Your task to perform on an android device: delete browsing data in the chrome app Image 0: 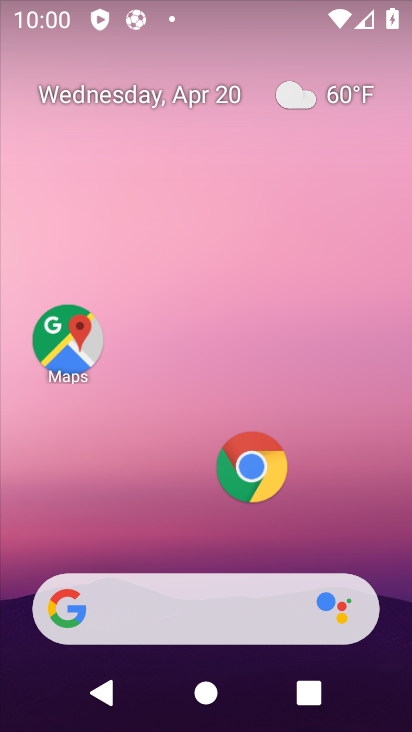
Step 0: click (247, 475)
Your task to perform on an android device: delete browsing data in the chrome app Image 1: 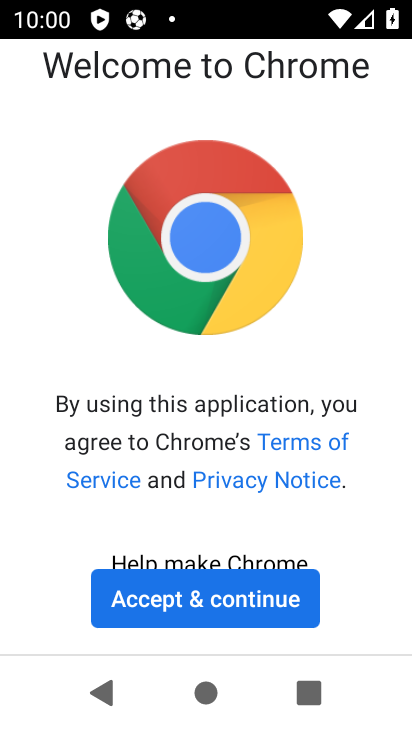
Step 1: click (227, 604)
Your task to perform on an android device: delete browsing data in the chrome app Image 2: 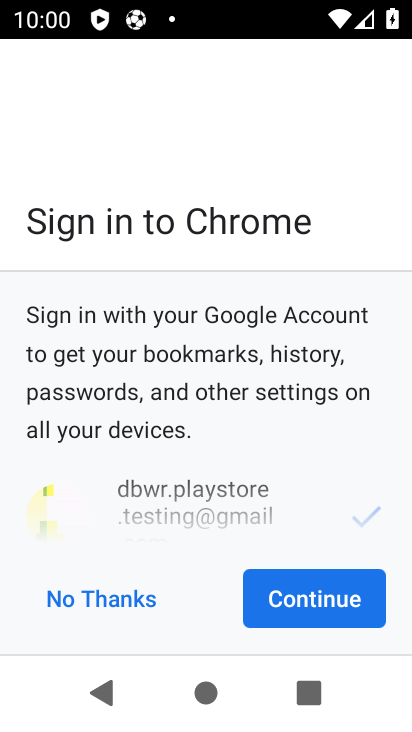
Step 2: click (318, 599)
Your task to perform on an android device: delete browsing data in the chrome app Image 3: 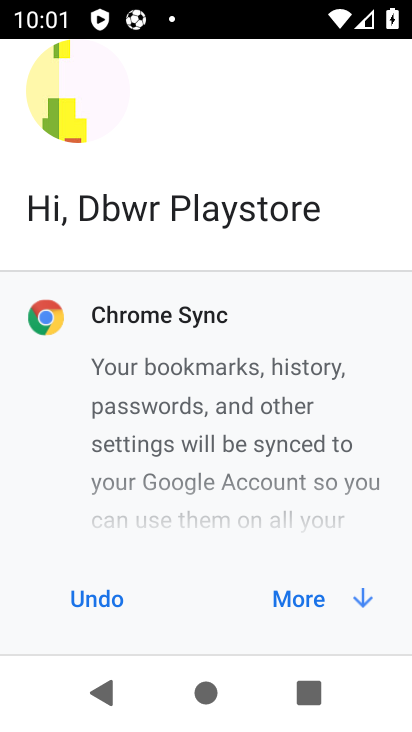
Step 3: click (305, 595)
Your task to perform on an android device: delete browsing data in the chrome app Image 4: 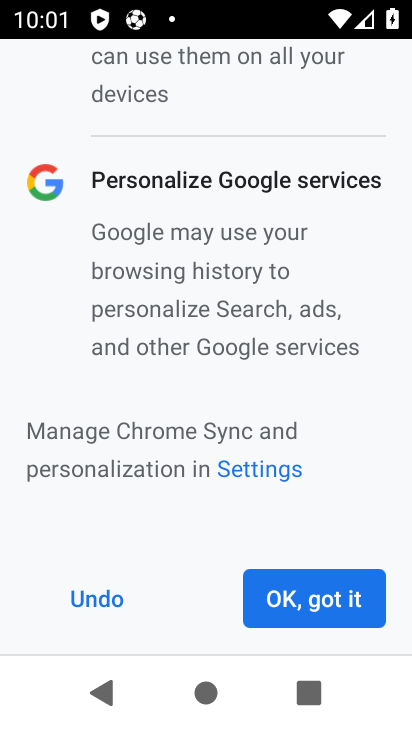
Step 4: click (304, 599)
Your task to perform on an android device: delete browsing data in the chrome app Image 5: 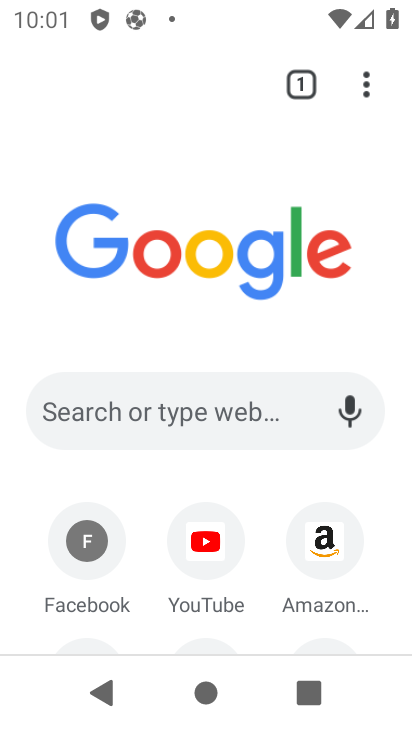
Step 5: click (363, 85)
Your task to perform on an android device: delete browsing data in the chrome app Image 6: 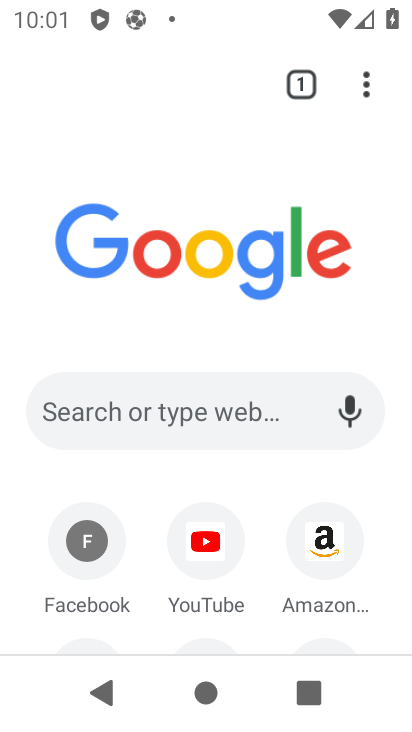
Step 6: click (363, 85)
Your task to perform on an android device: delete browsing data in the chrome app Image 7: 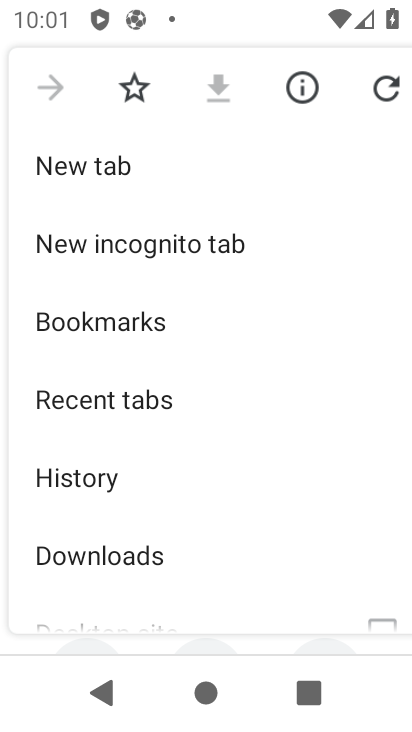
Step 7: click (81, 481)
Your task to perform on an android device: delete browsing data in the chrome app Image 8: 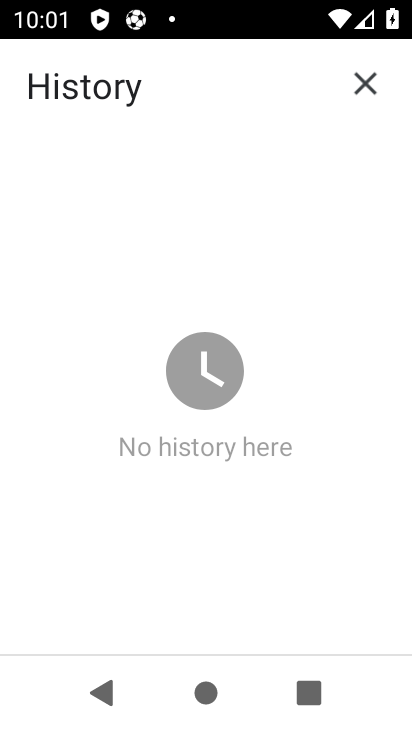
Step 8: task complete